Your task to perform on an android device: allow cookies in the chrome app Image 0: 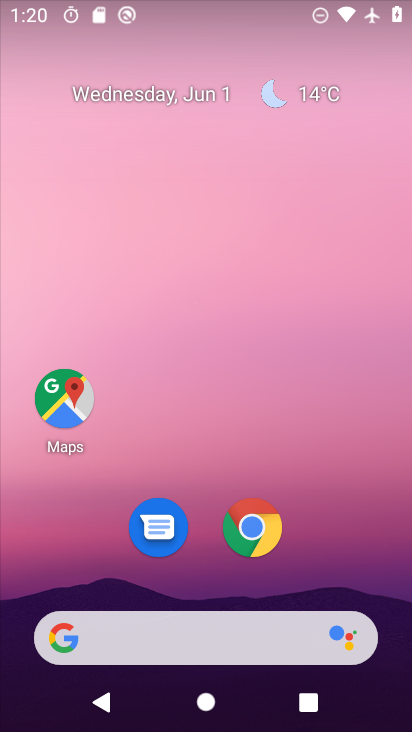
Step 0: drag from (199, 648) to (211, 152)
Your task to perform on an android device: allow cookies in the chrome app Image 1: 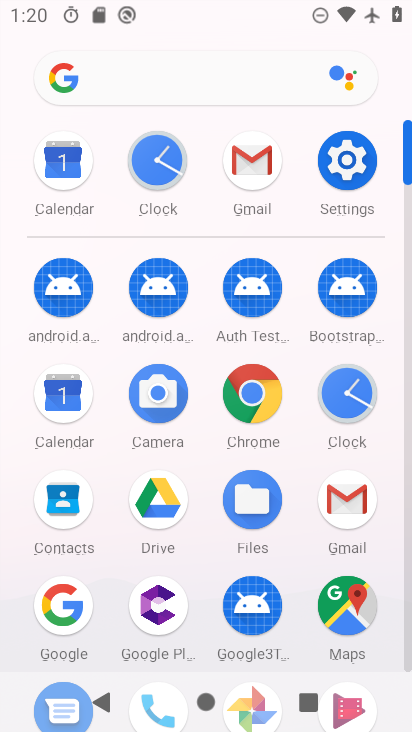
Step 1: click (260, 408)
Your task to perform on an android device: allow cookies in the chrome app Image 2: 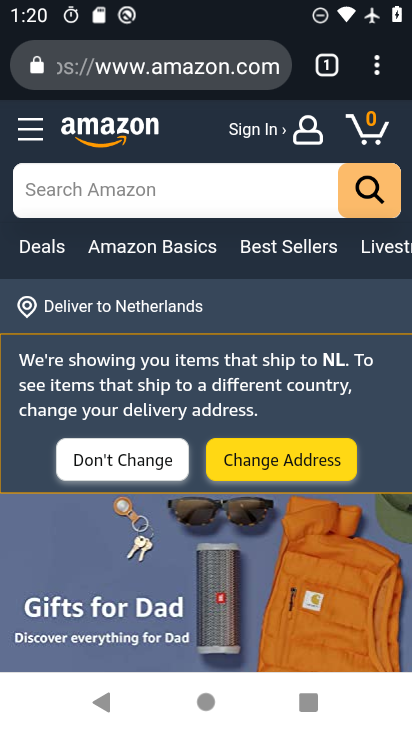
Step 2: click (385, 67)
Your task to perform on an android device: allow cookies in the chrome app Image 3: 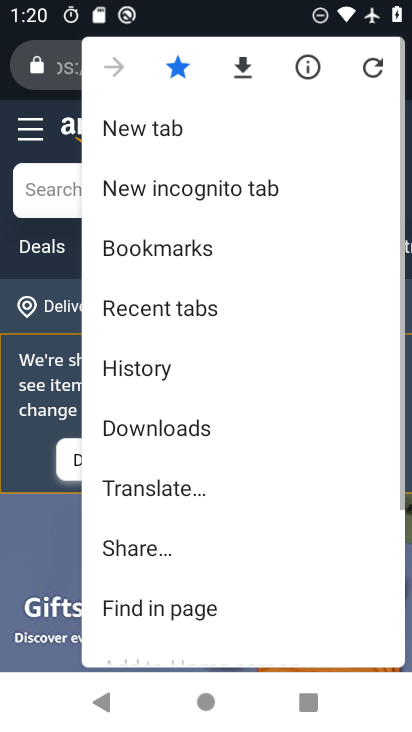
Step 3: drag from (200, 531) to (289, 126)
Your task to perform on an android device: allow cookies in the chrome app Image 4: 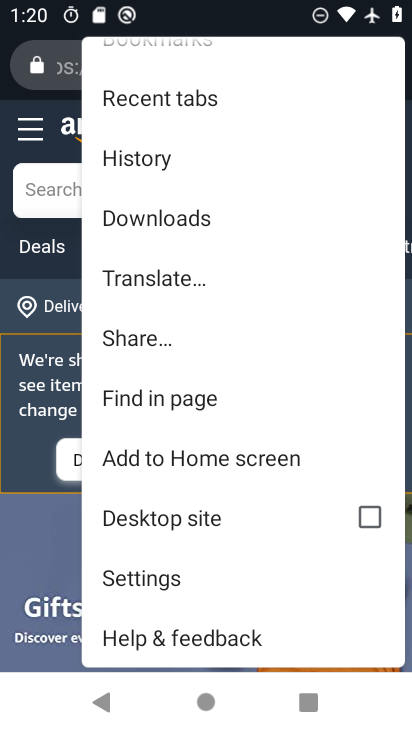
Step 4: click (160, 574)
Your task to perform on an android device: allow cookies in the chrome app Image 5: 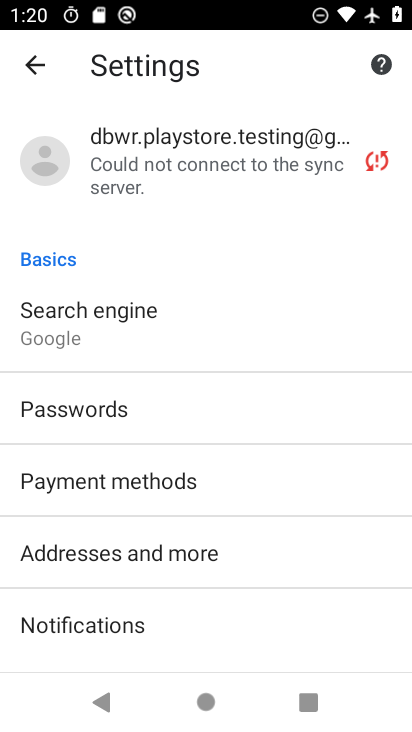
Step 5: drag from (167, 528) to (181, 290)
Your task to perform on an android device: allow cookies in the chrome app Image 6: 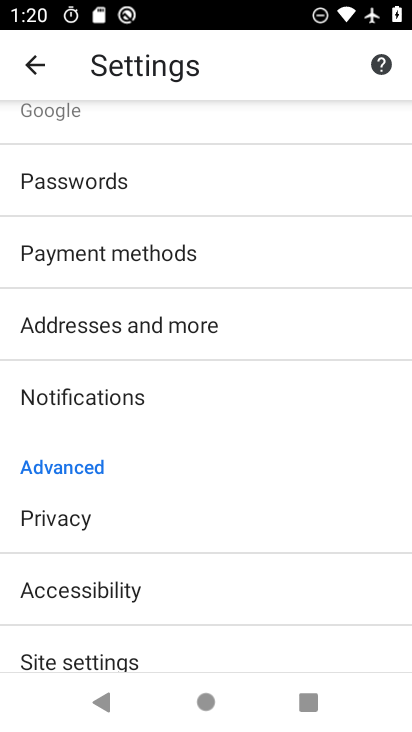
Step 6: drag from (176, 535) to (197, 350)
Your task to perform on an android device: allow cookies in the chrome app Image 7: 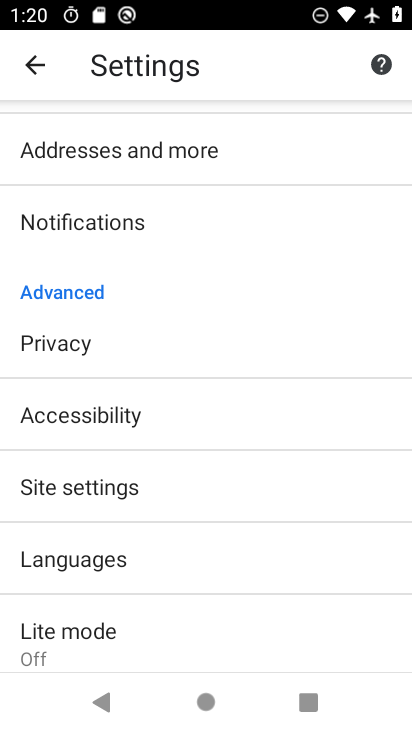
Step 7: click (109, 488)
Your task to perform on an android device: allow cookies in the chrome app Image 8: 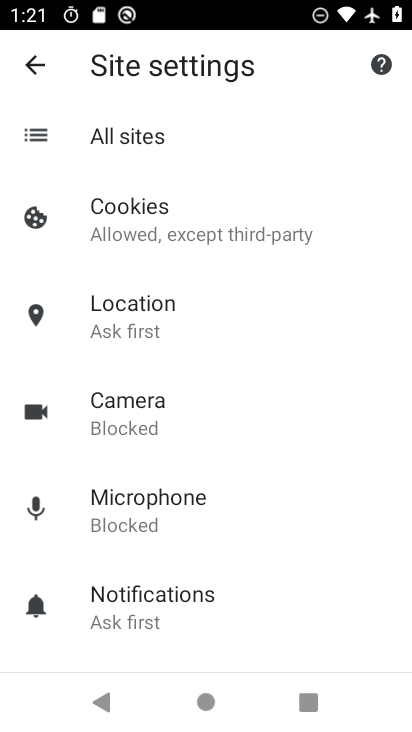
Step 8: click (181, 228)
Your task to perform on an android device: allow cookies in the chrome app Image 9: 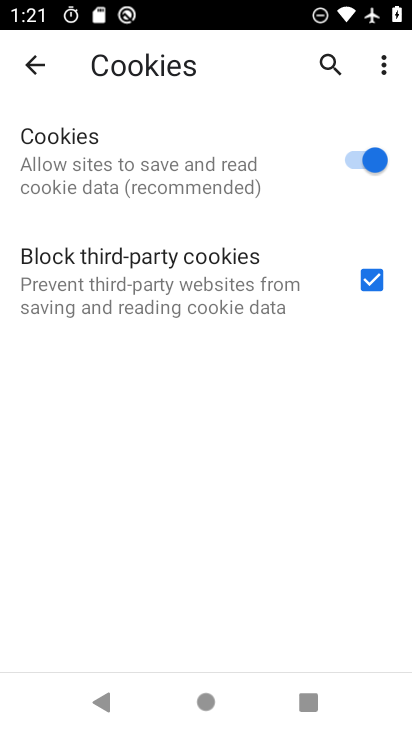
Step 9: task complete